Your task to perform on an android device: Add "razer nari" to the cart on walmart, then select checkout. Image 0: 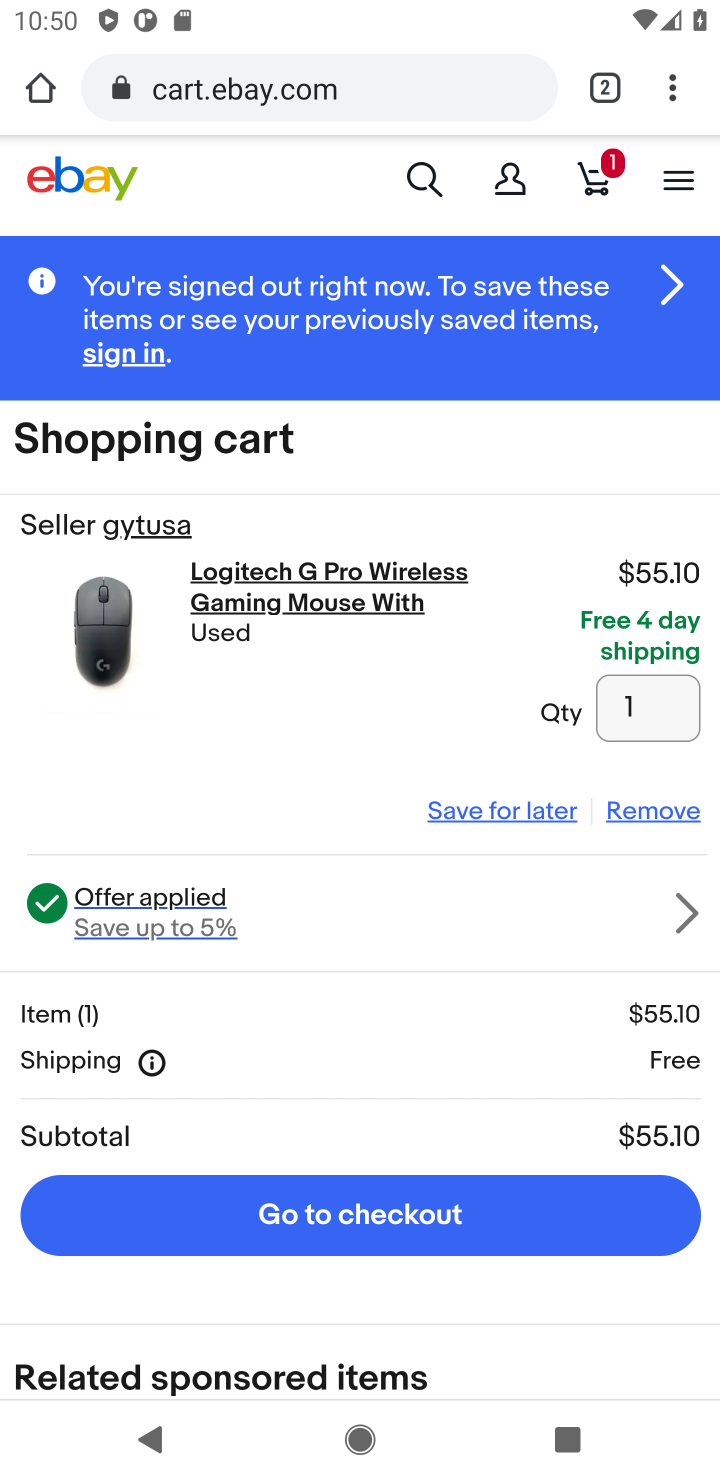
Step 0: click (401, 81)
Your task to perform on an android device: Add "razer nari" to the cart on walmart, then select checkout. Image 1: 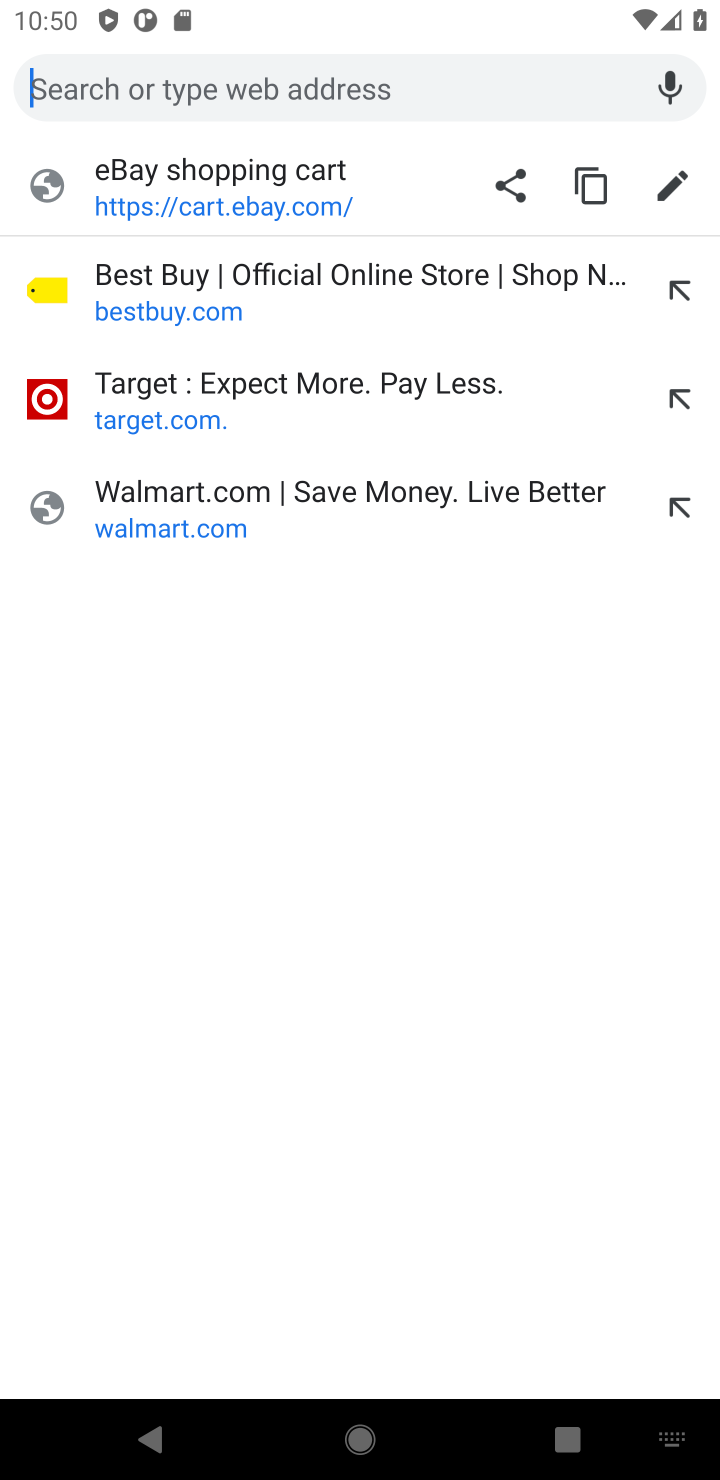
Step 1: type "walmart"
Your task to perform on an android device: Add "razer nari" to the cart on walmart, then select checkout. Image 2: 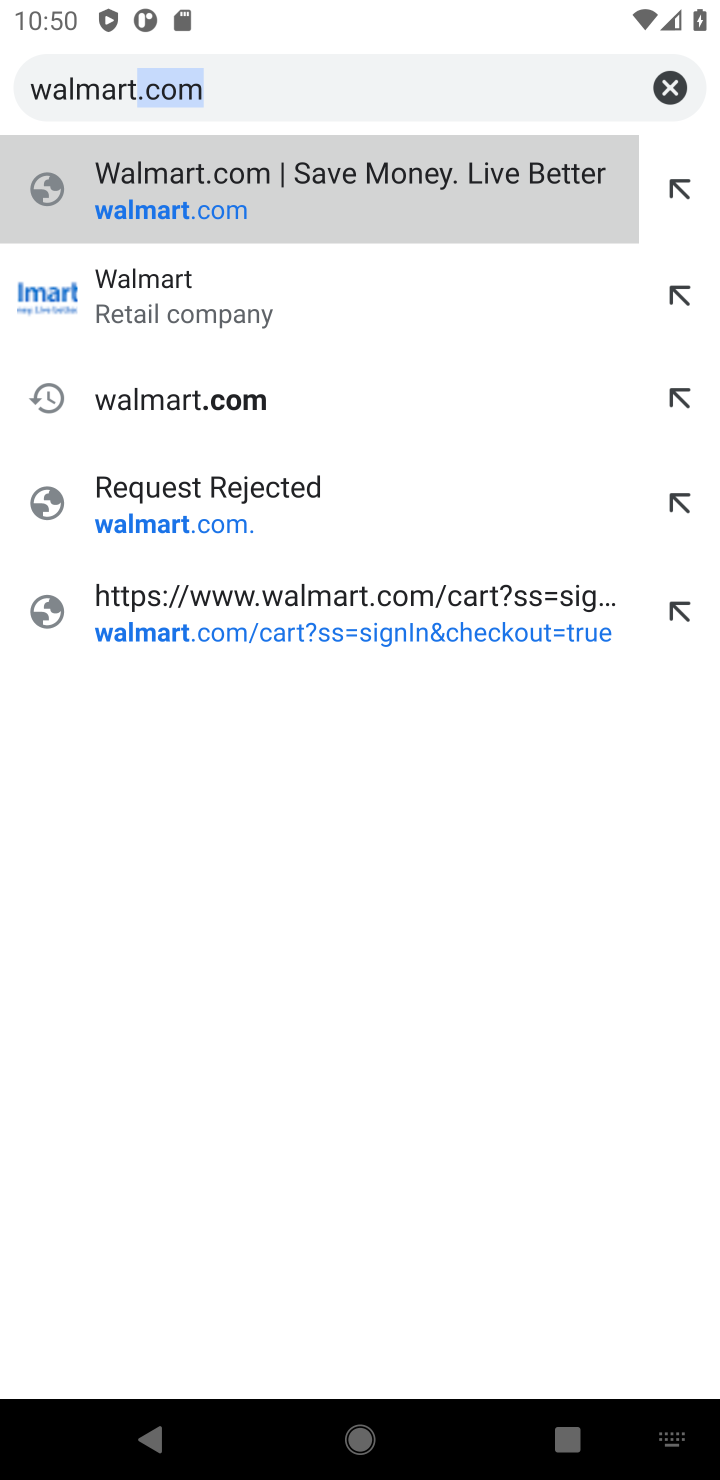
Step 2: press enter
Your task to perform on an android device: Add "razer nari" to the cart on walmart, then select checkout. Image 3: 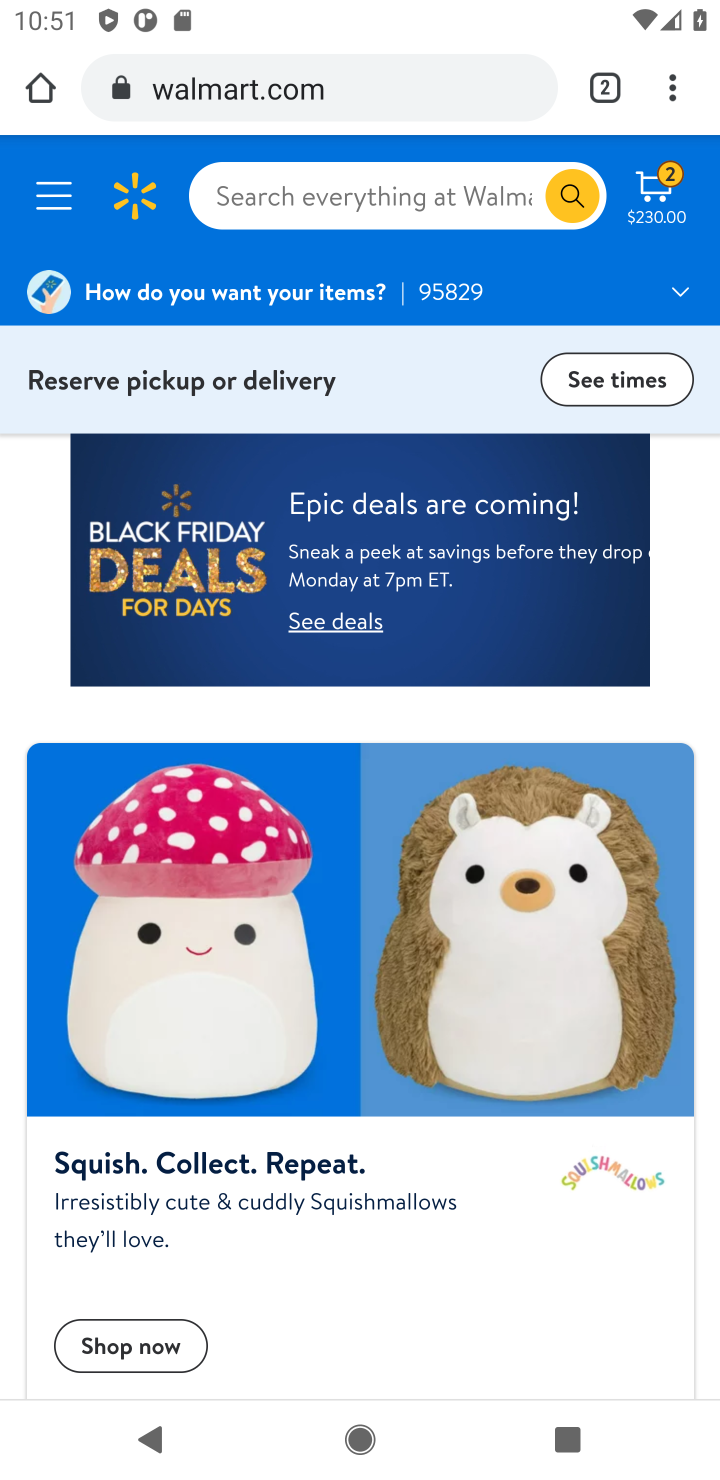
Step 3: click (376, 183)
Your task to perform on an android device: Add "razer nari" to the cart on walmart, then select checkout. Image 4: 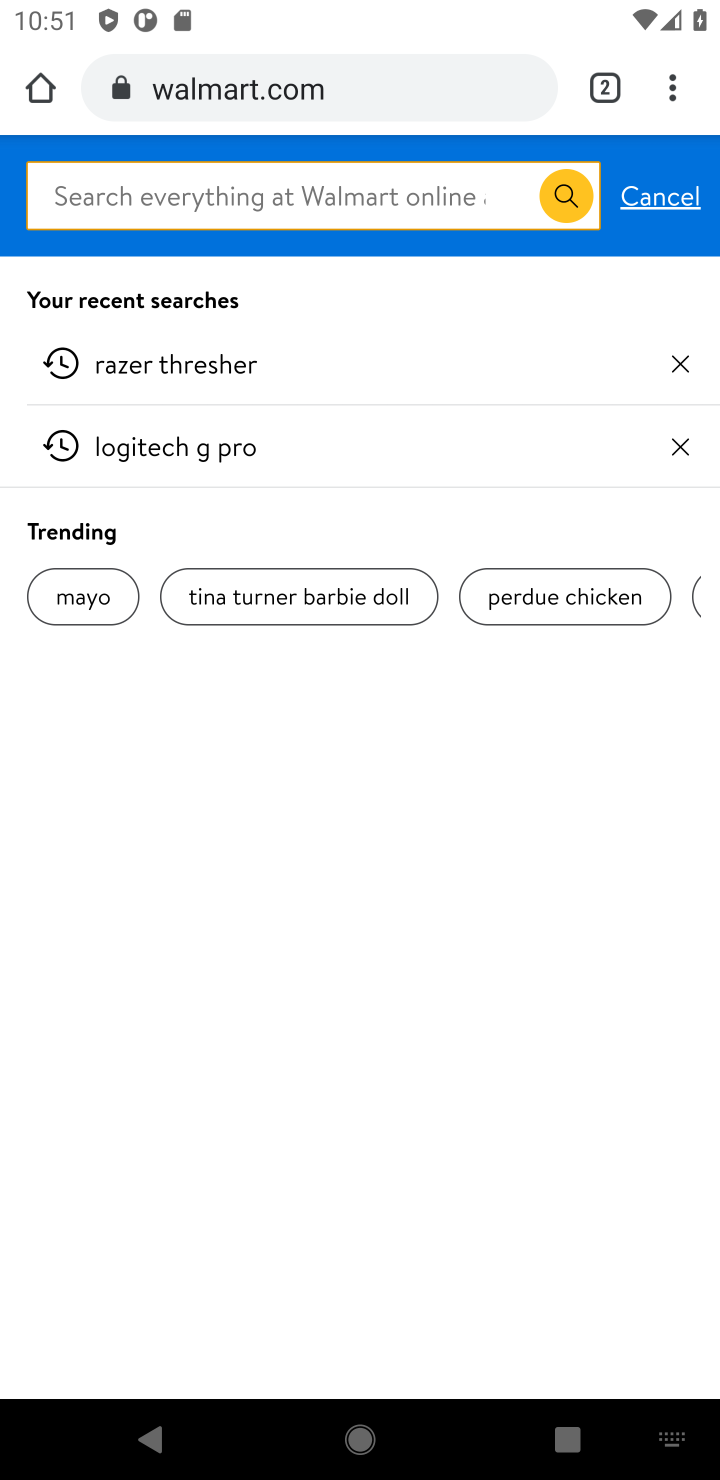
Step 4: press enter
Your task to perform on an android device: Add "razer nari" to the cart on walmart, then select checkout. Image 5: 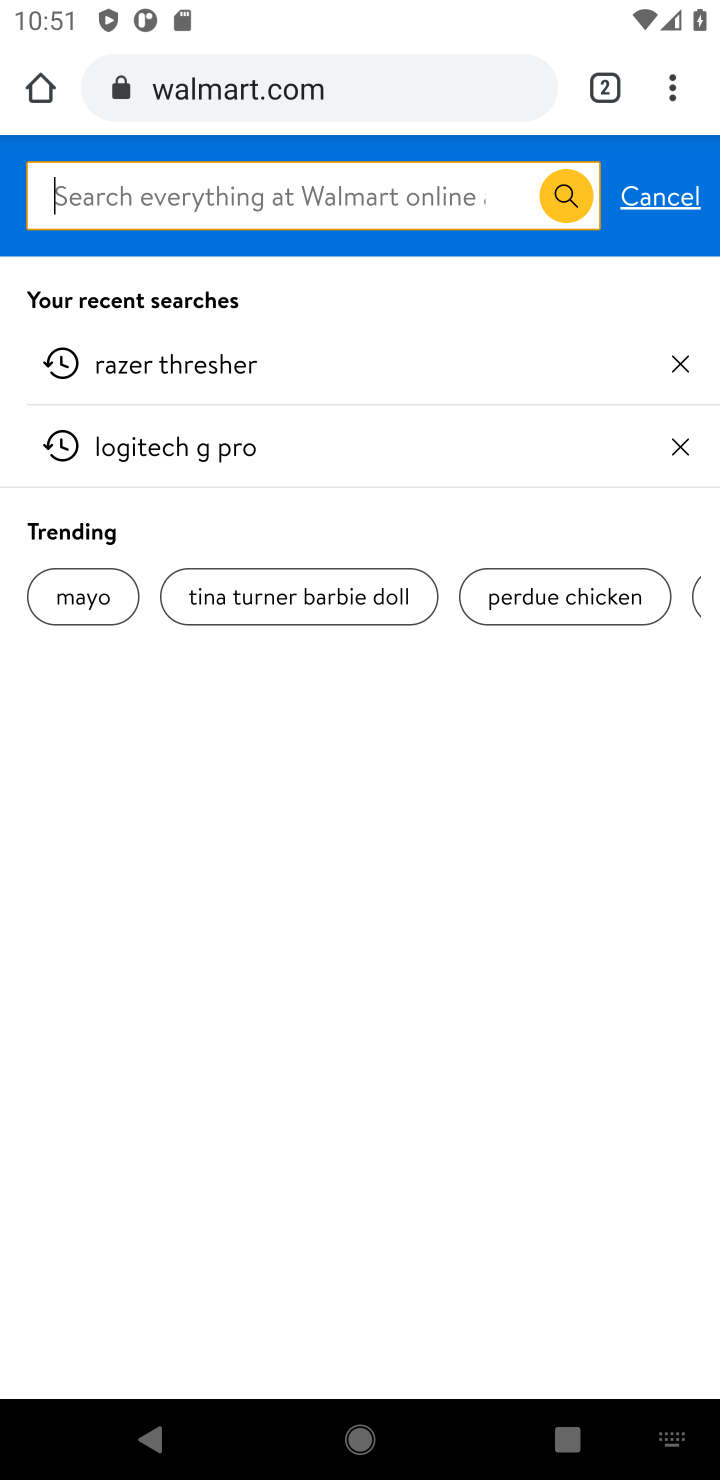
Step 5: type "razer nari"
Your task to perform on an android device: Add "razer nari" to the cart on walmart, then select checkout. Image 6: 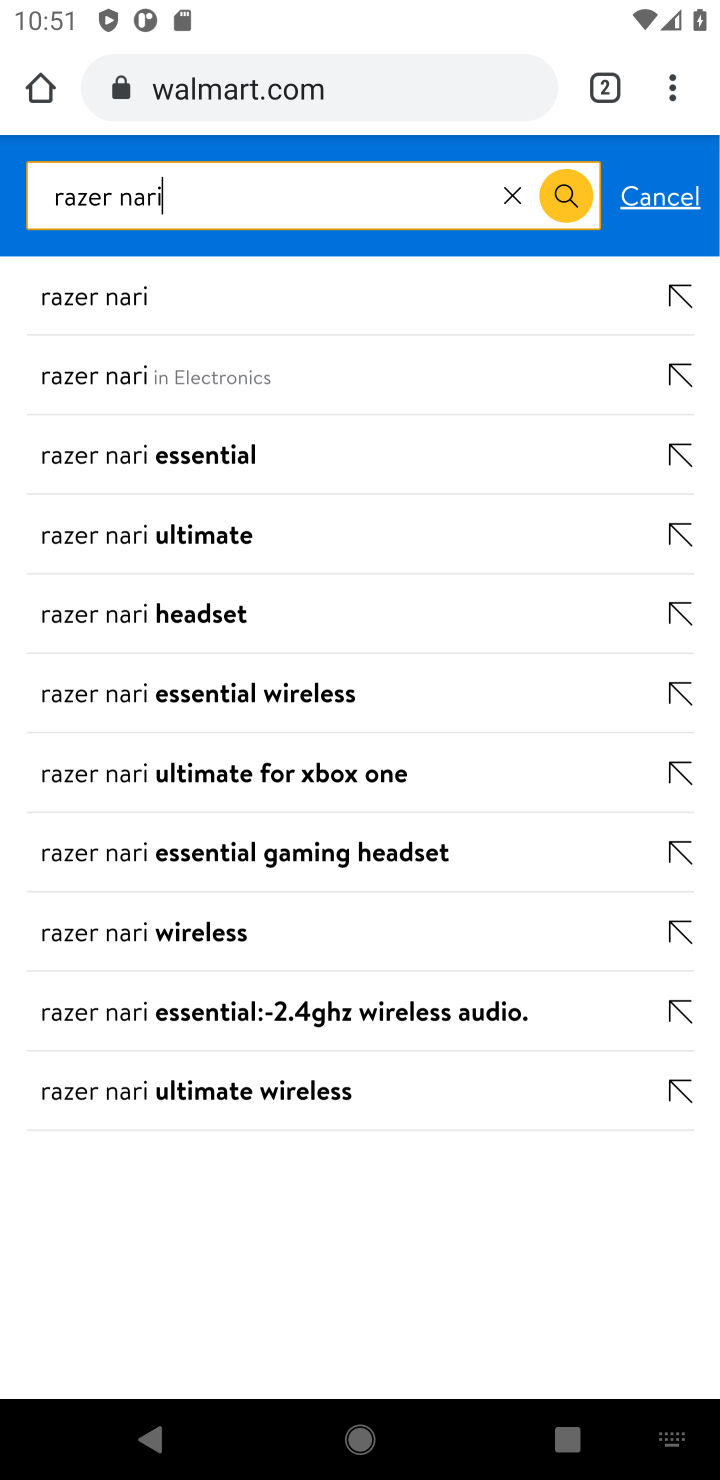
Step 6: click (120, 295)
Your task to perform on an android device: Add "razer nari" to the cart on walmart, then select checkout. Image 7: 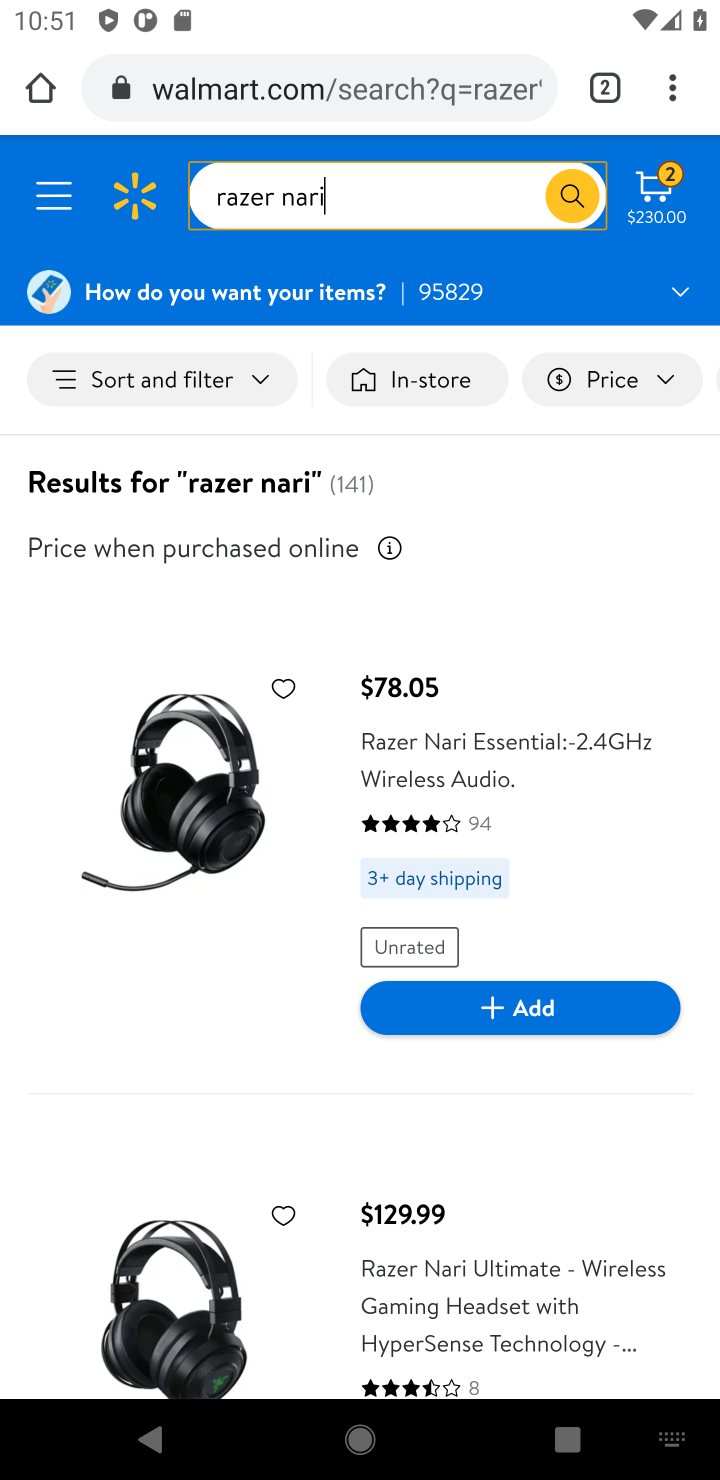
Step 7: click (122, 805)
Your task to perform on an android device: Add "razer nari" to the cart on walmart, then select checkout. Image 8: 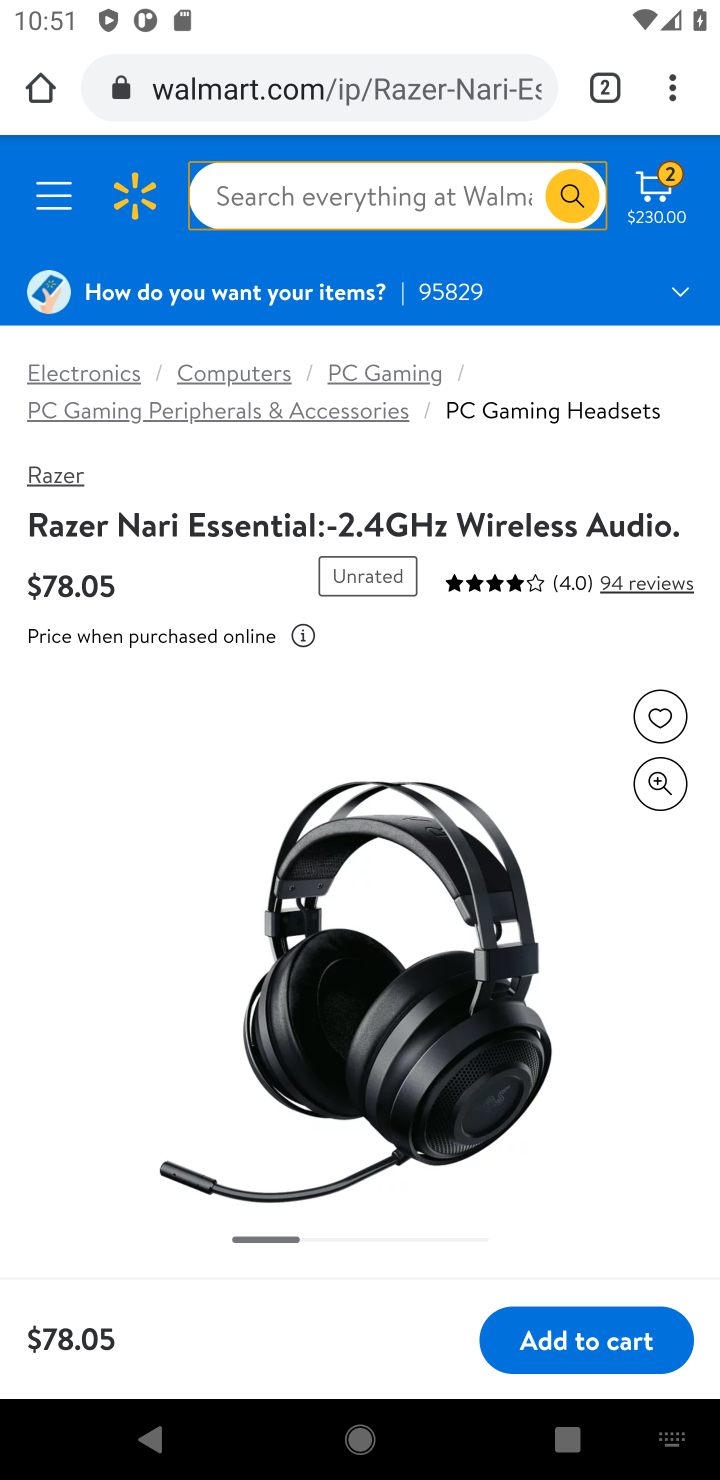
Step 8: click (610, 1342)
Your task to perform on an android device: Add "razer nari" to the cart on walmart, then select checkout. Image 9: 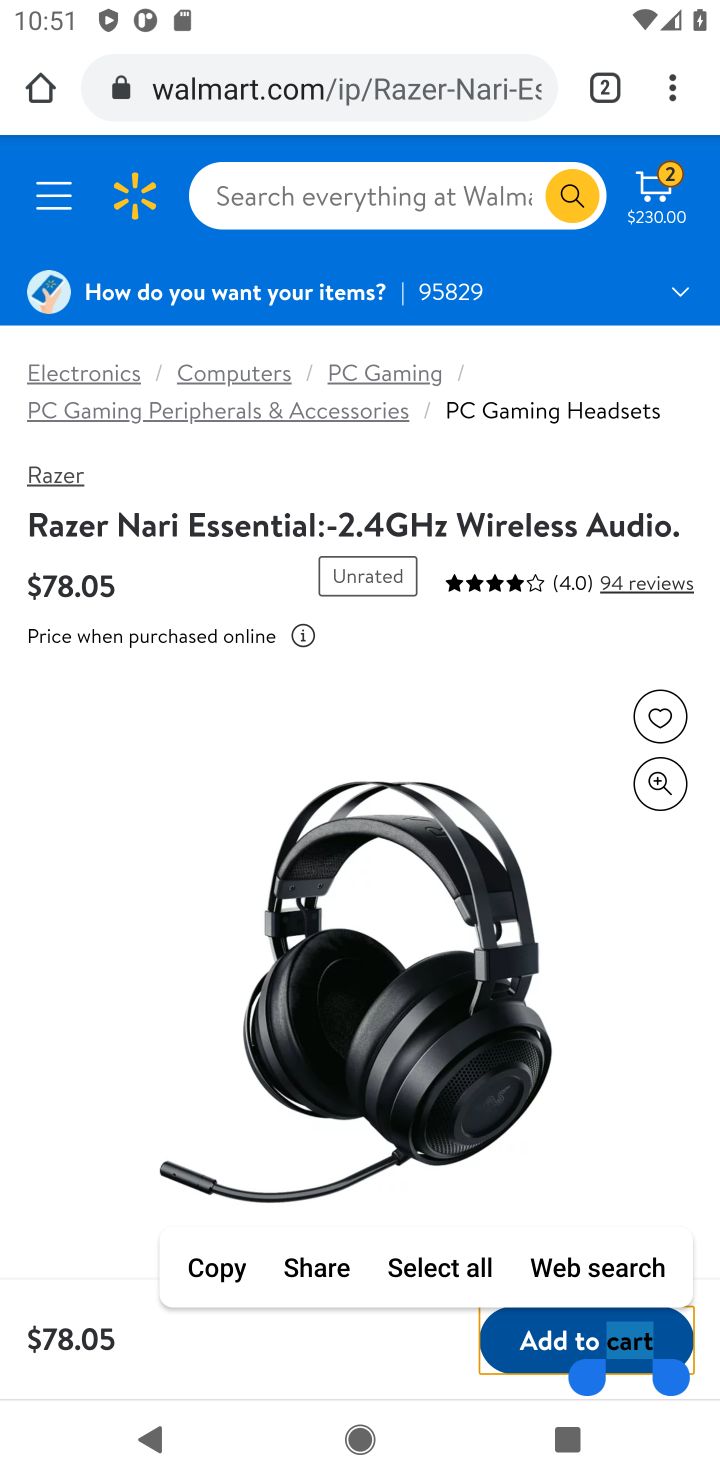
Step 9: click (644, 1119)
Your task to perform on an android device: Add "razer nari" to the cart on walmart, then select checkout. Image 10: 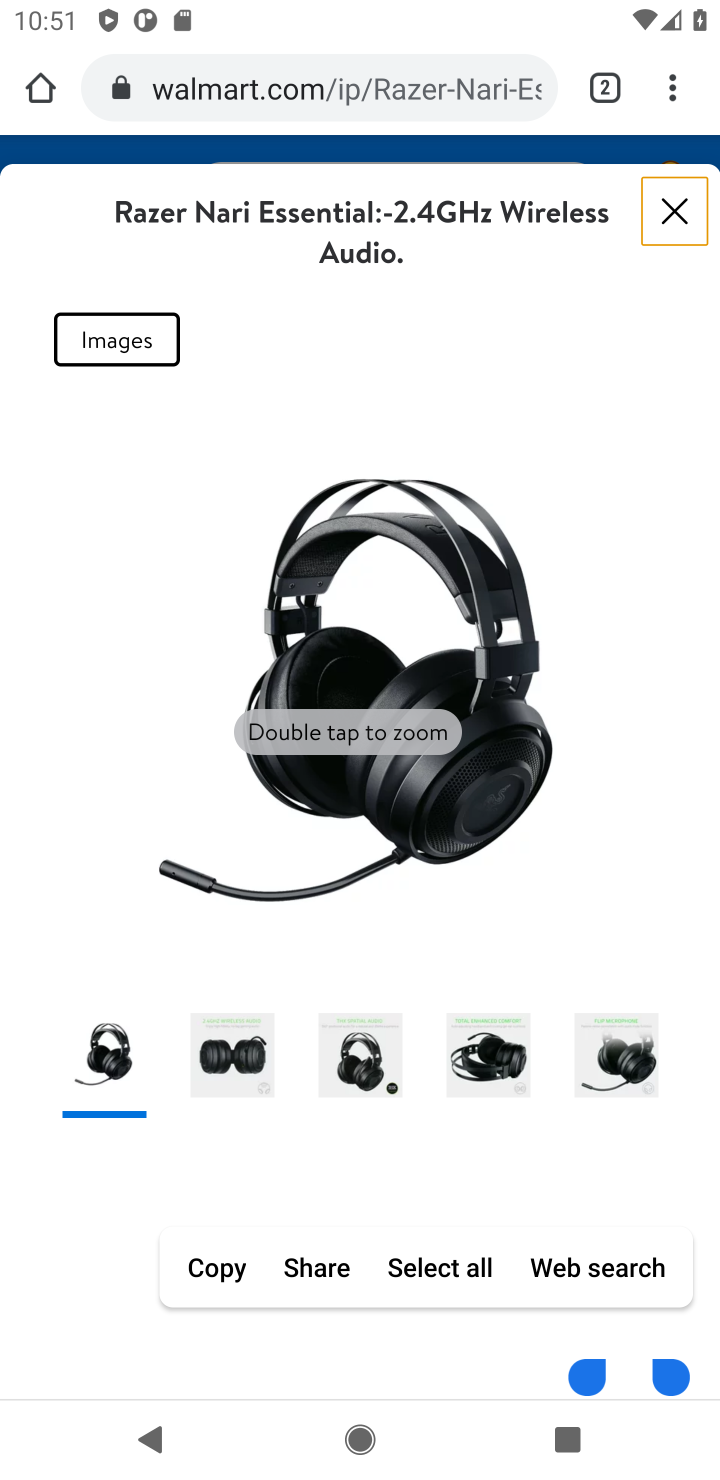
Step 10: click (665, 208)
Your task to perform on an android device: Add "razer nari" to the cart on walmart, then select checkout. Image 11: 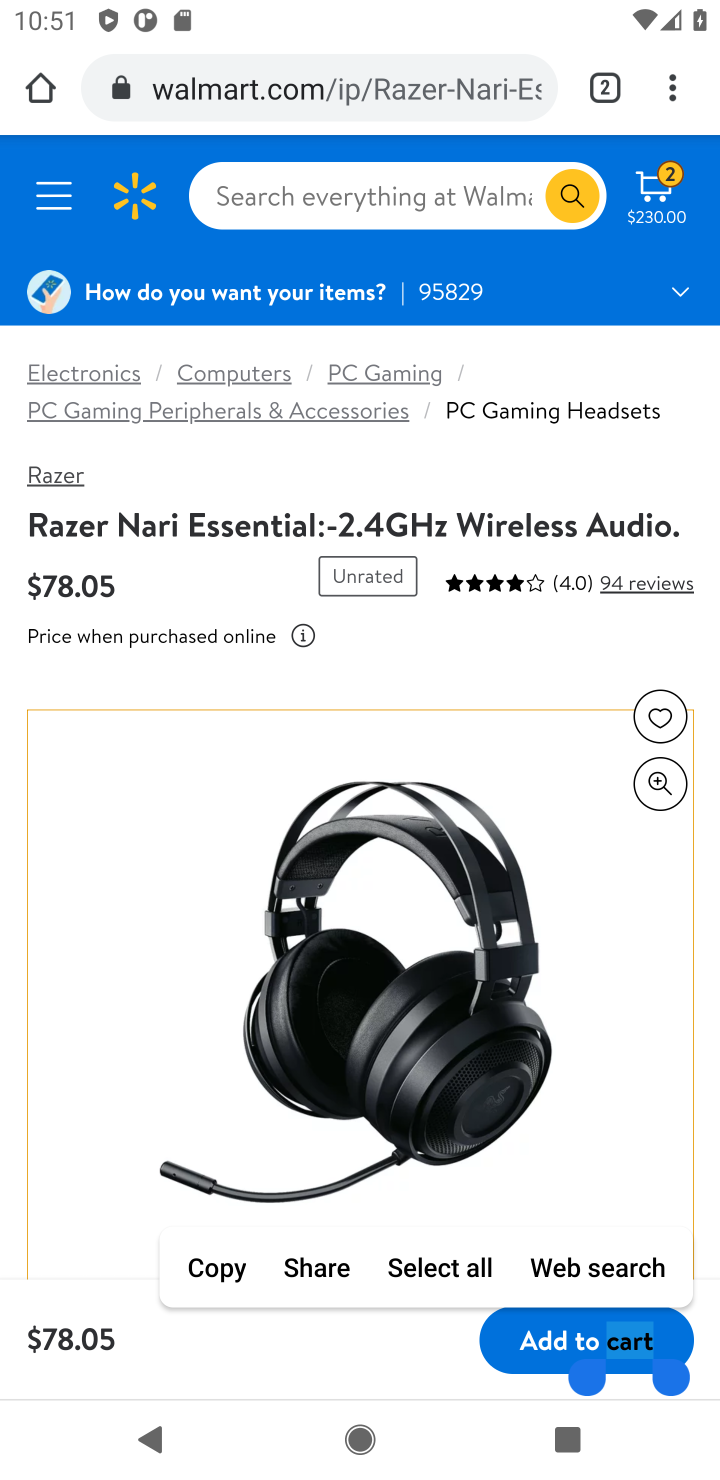
Step 11: click (39, 1075)
Your task to perform on an android device: Add "razer nari" to the cart on walmart, then select checkout. Image 12: 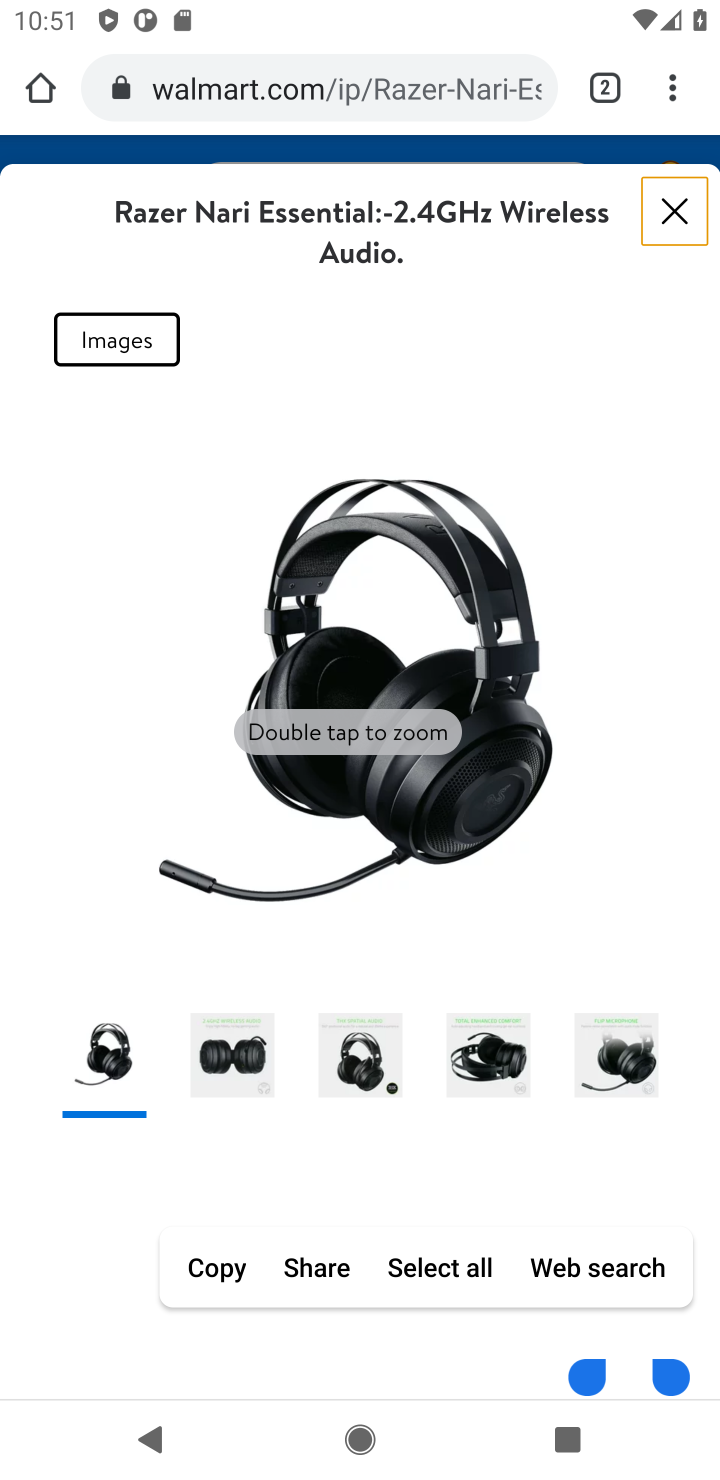
Step 12: click (686, 221)
Your task to perform on an android device: Add "razer nari" to the cart on walmart, then select checkout. Image 13: 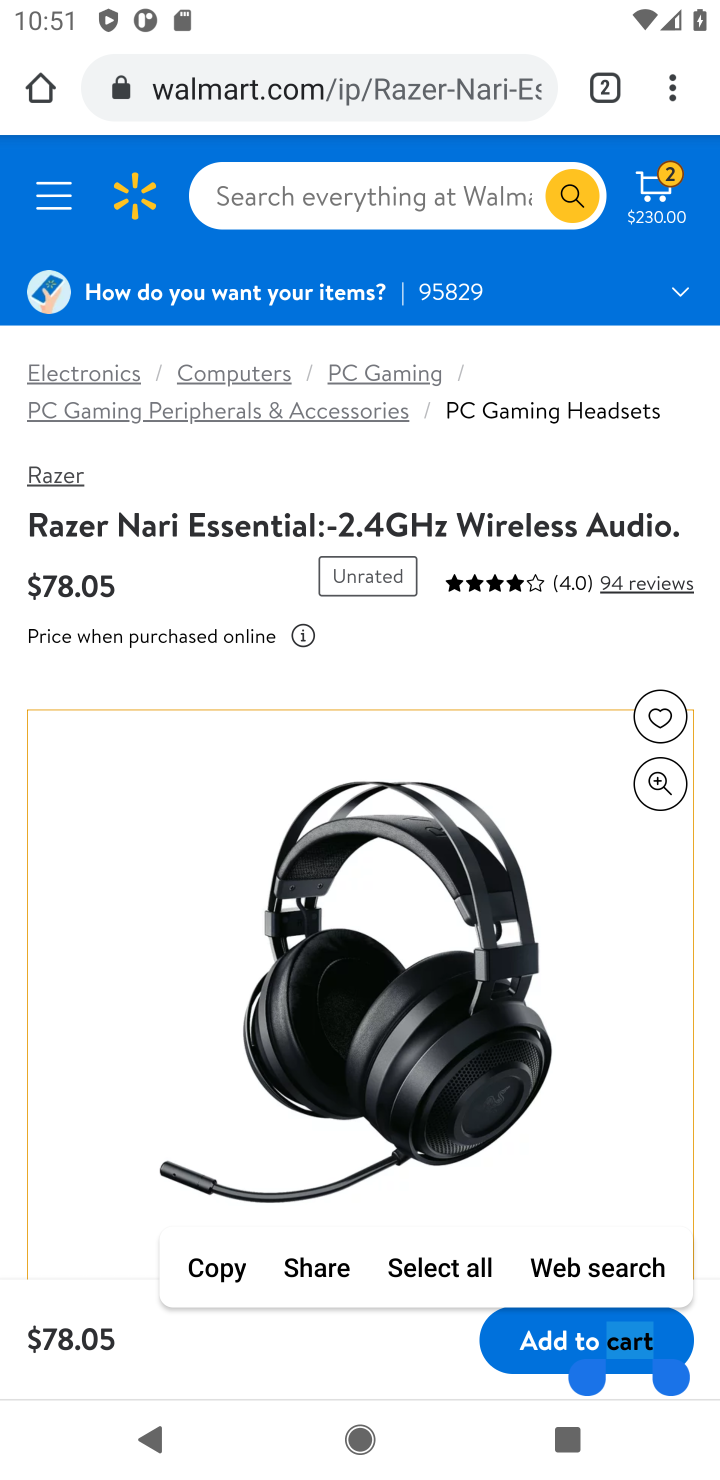
Step 13: click (567, 248)
Your task to perform on an android device: Add "razer nari" to the cart on walmart, then select checkout. Image 14: 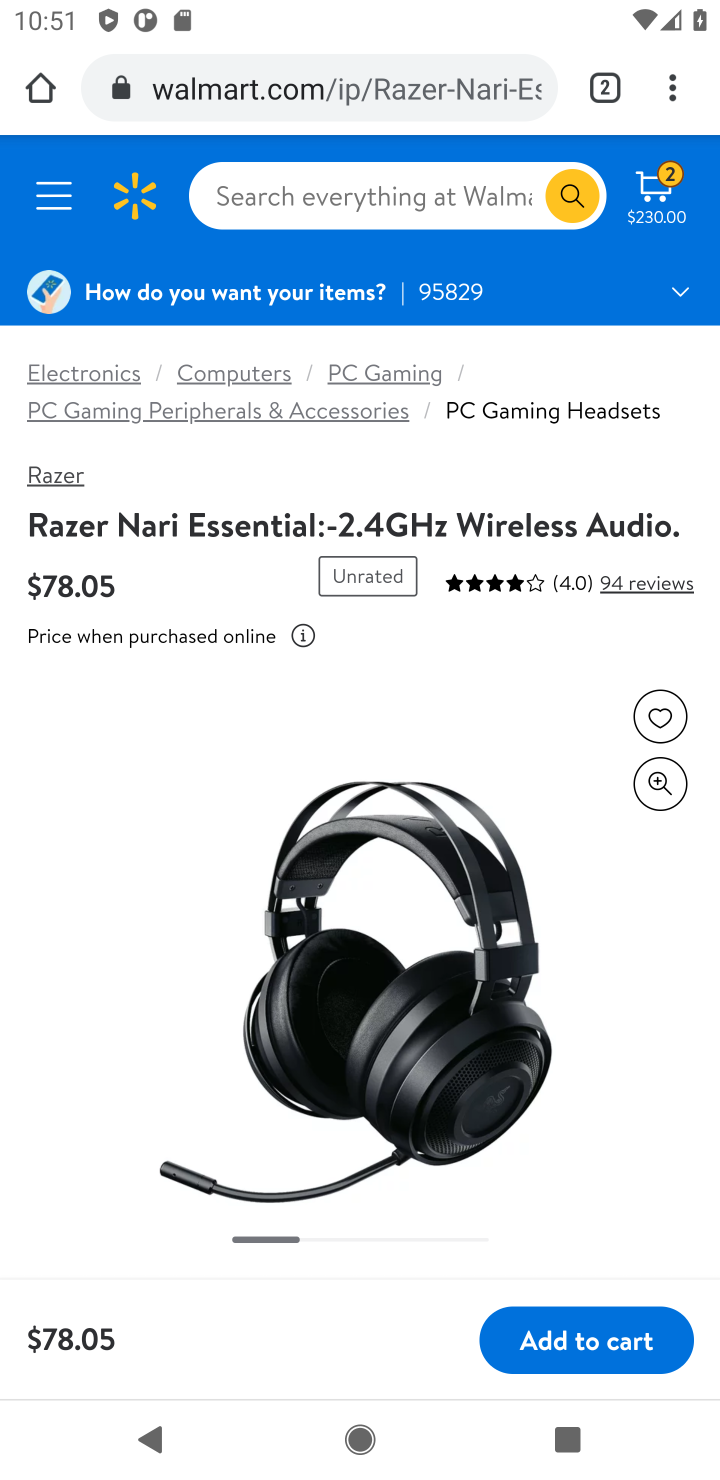
Step 14: click (559, 1346)
Your task to perform on an android device: Add "razer nari" to the cart on walmart, then select checkout. Image 15: 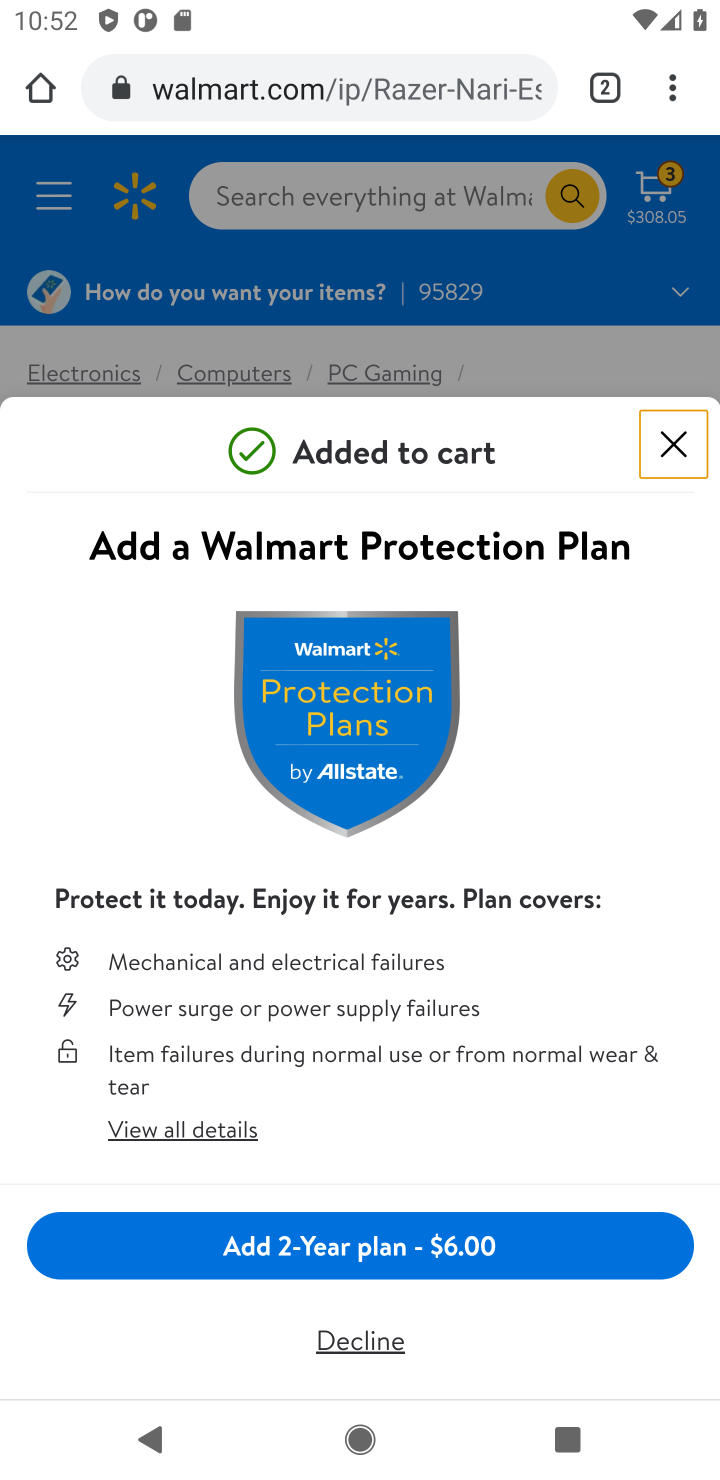
Step 15: click (661, 446)
Your task to perform on an android device: Add "razer nari" to the cart on walmart, then select checkout. Image 16: 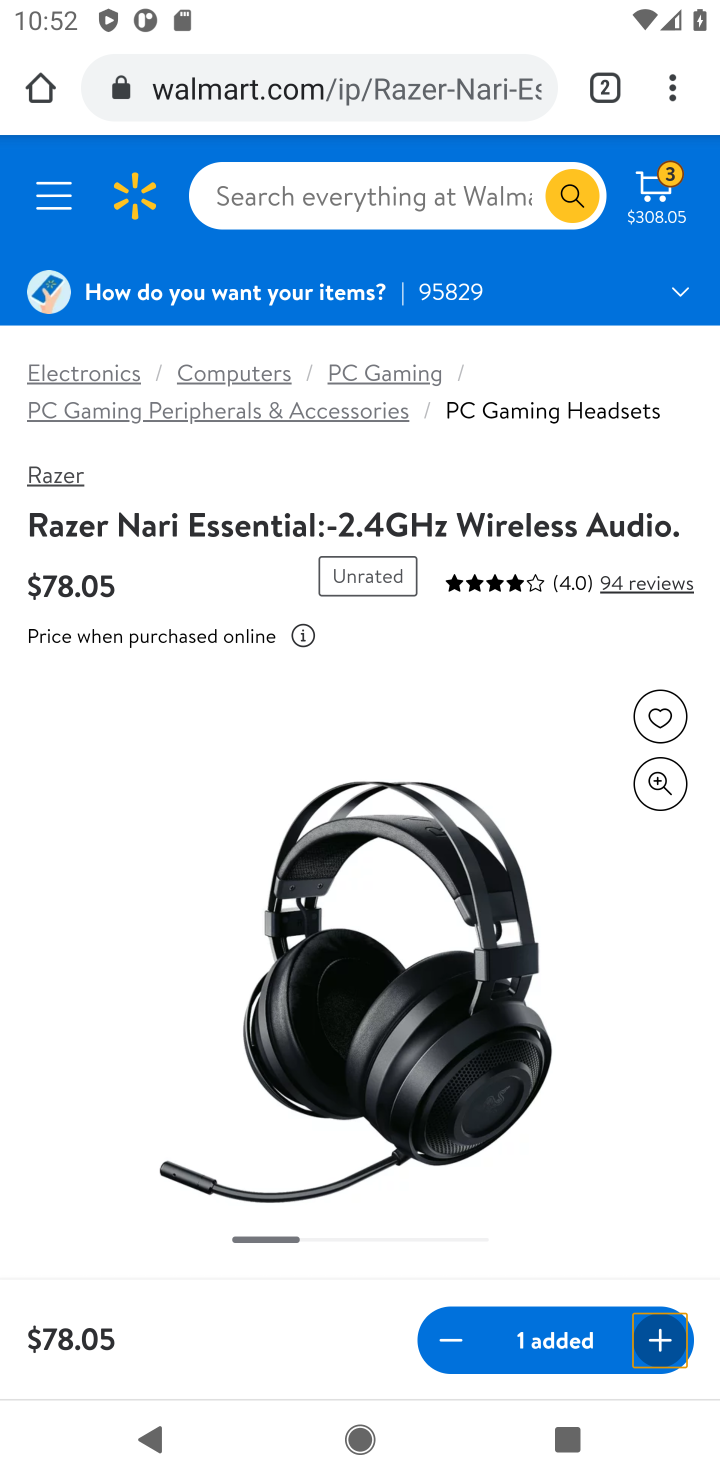
Step 16: click (662, 181)
Your task to perform on an android device: Add "razer nari" to the cart on walmart, then select checkout. Image 17: 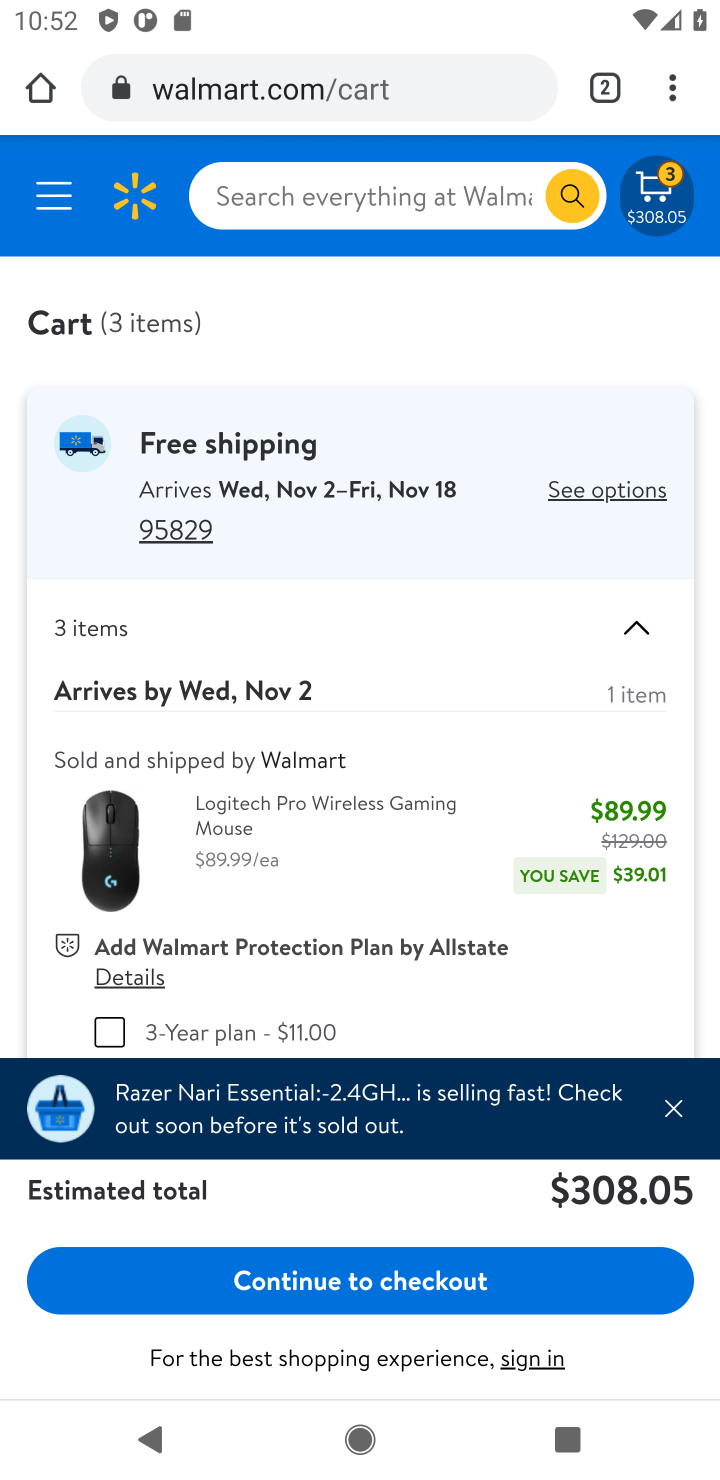
Step 17: click (441, 1270)
Your task to perform on an android device: Add "razer nari" to the cart on walmart, then select checkout. Image 18: 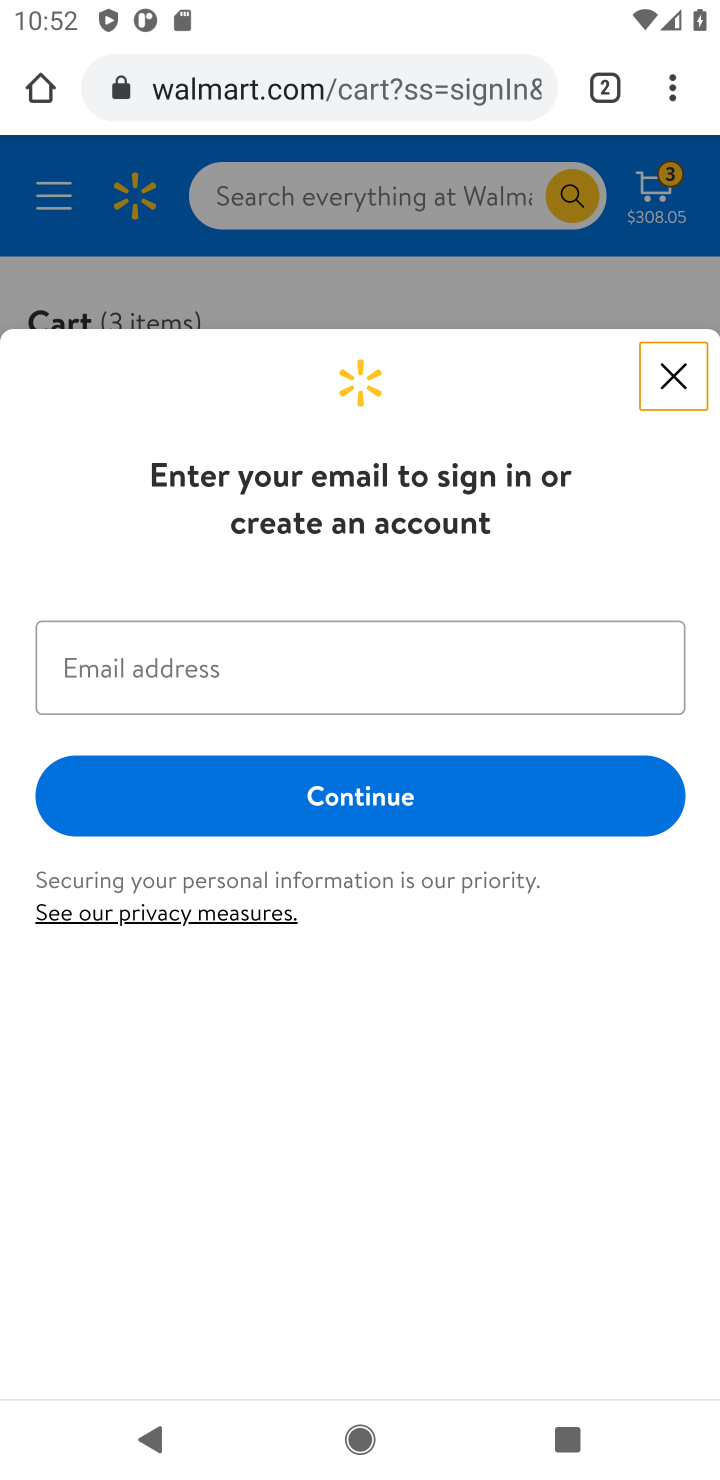
Step 18: task complete